Your task to perform on an android device: open wifi settings Image 0: 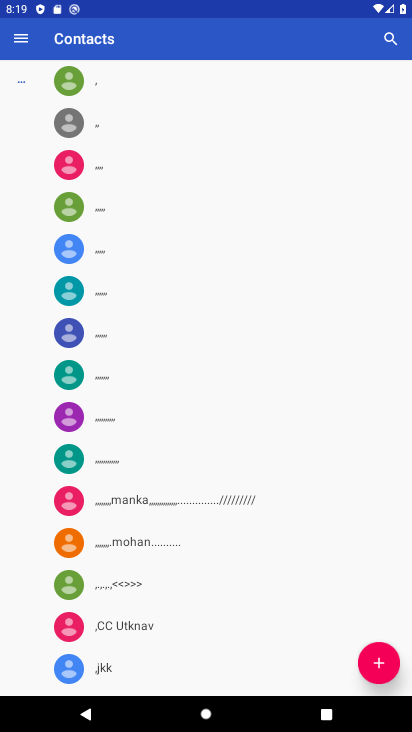
Step 0: press back button
Your task to perform on an android device: open wifi settings Image 1: 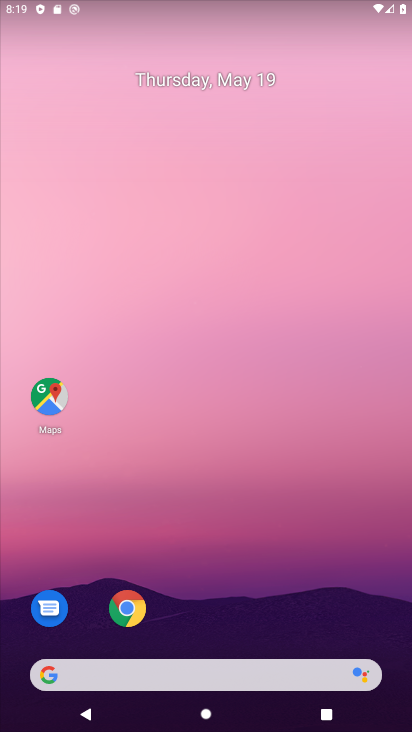
Step 1: drag from (255, 690) to (122, 197)
Your task to perform on an android device: open wifi settings Image 2: 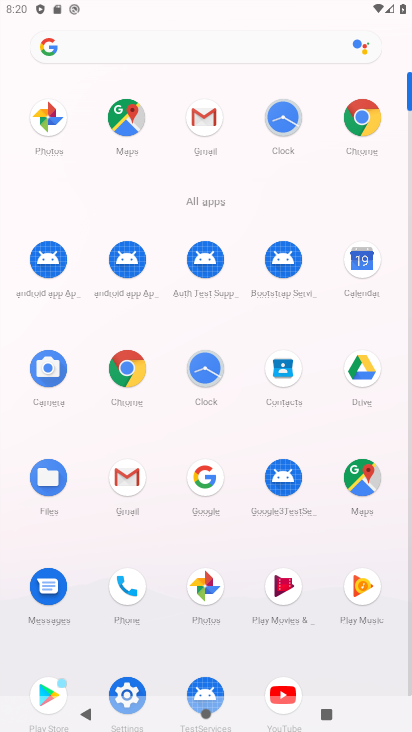
Step 2: click (132, 687)
Your task to perform on an android device: open wifi settings Image 3: 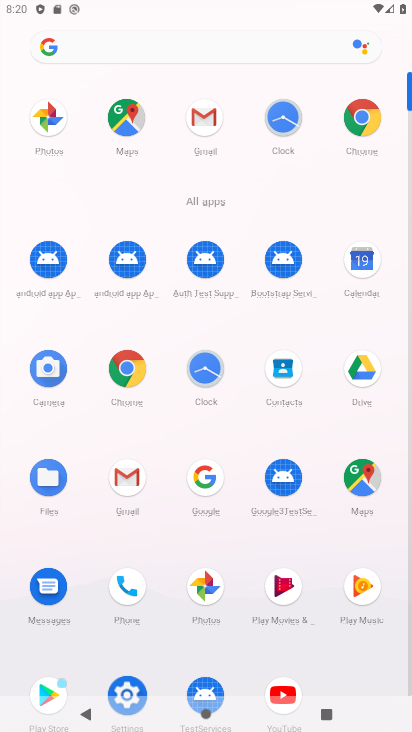
Step 3: click (133, 684)
Your task to perform on an android device: open wifi settings Image 4: 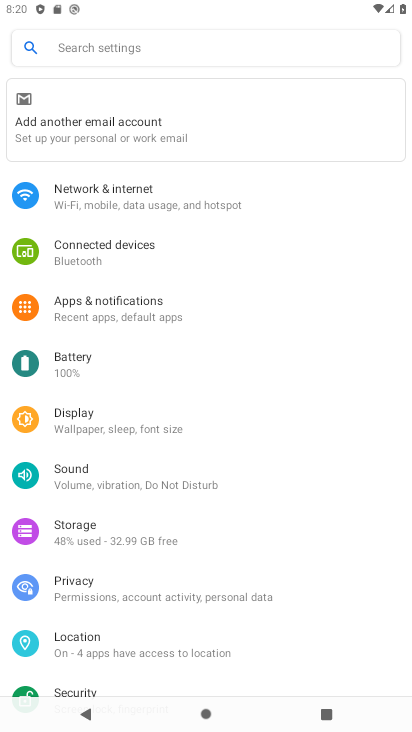
Step 4: click (97, 201)
Your task to perform on an android device: open wifi settings Image 5: 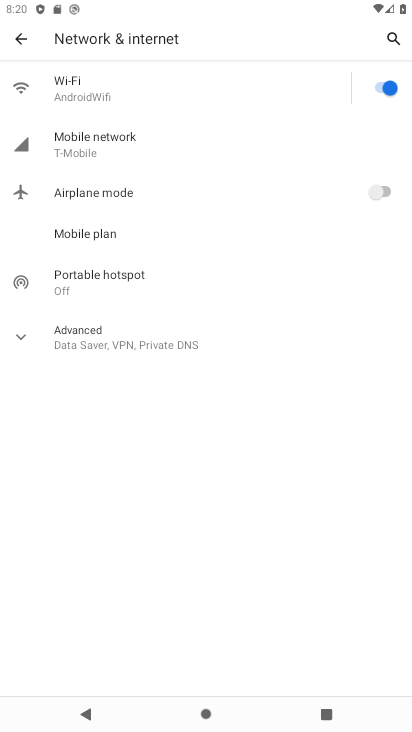
Step 5: task complete